Your task to perform on an android device: allow notifications from all sites in the chrome app Image 0: 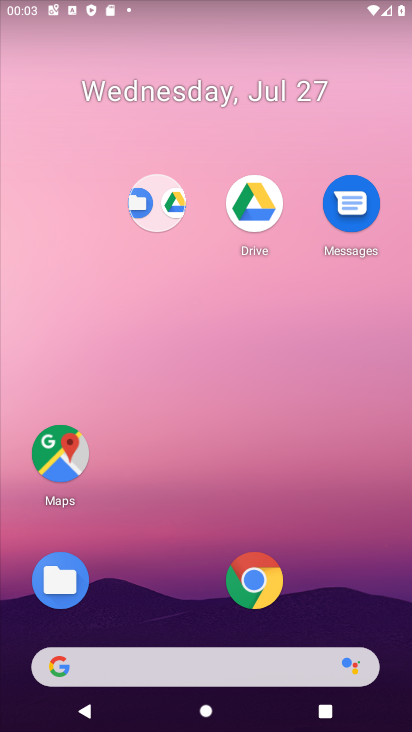
Step 0: click (248, 588)
Your task to perform on an android device: allow notifications from all sites in the chrome app Image 1: 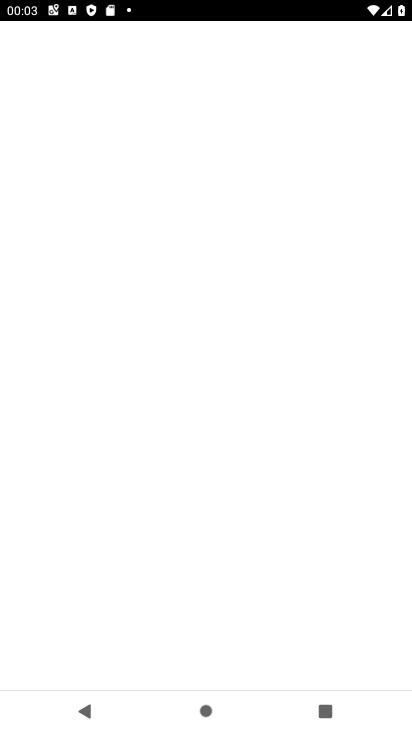
Step 1: click (154, 622)
Your task to perform on an android device: allow notifications from all sites in the chrome app Image 2: 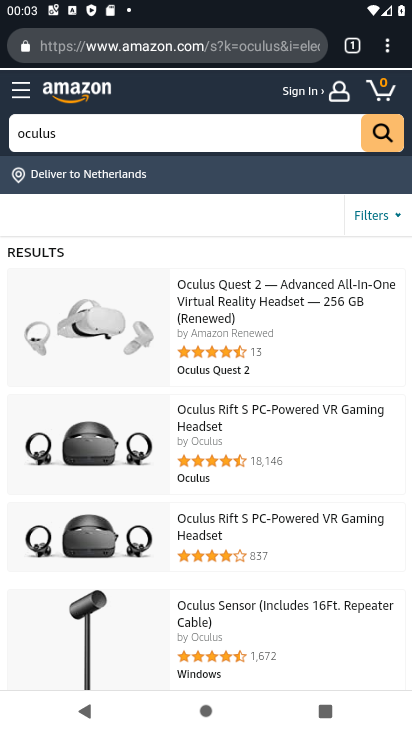
Step 2: click (396, 56)
Your task to perform on an android device: allow notifications from all sites in the chrome app Image 3: 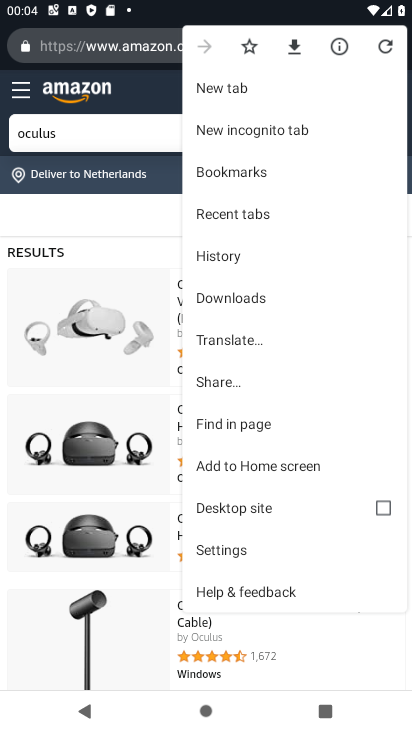
Step 3: click (223, 556)
Your task to perform on an android device: allow notifications from all sites in the chrome app Image 4: 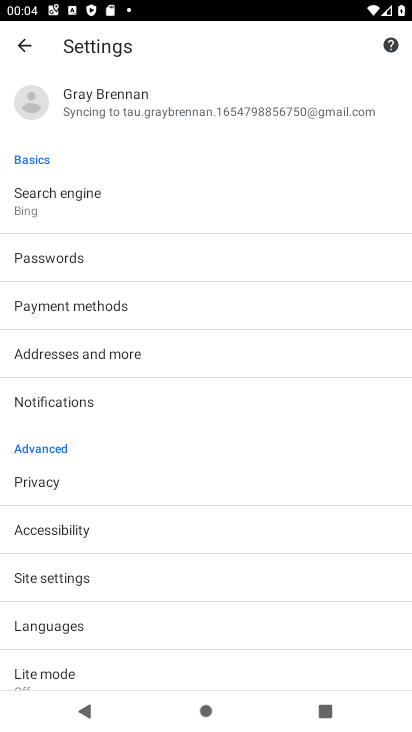
Step 4: click (123, 400)
Your task to perform on an android device: allow notifications from all sites in the chrome app Image 5: 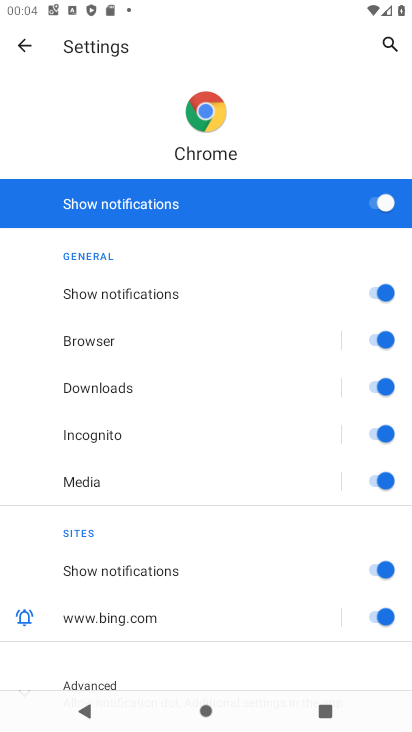
Step 5: task complete